Your task to perform on an android device: Toggle the flashlight Image 0: 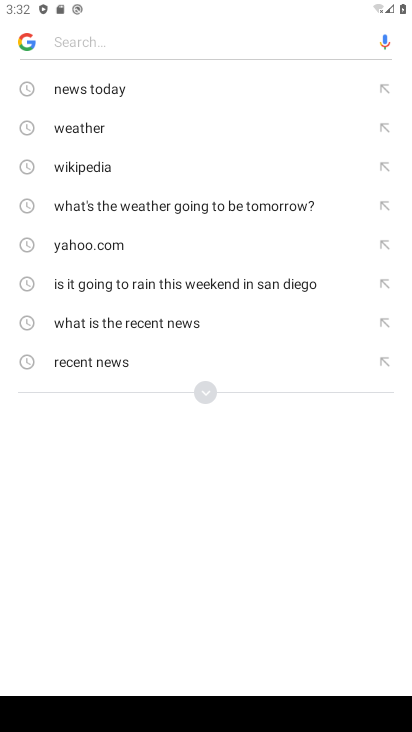
Step 0: press home button
Your task to perform on an android device: Toggle the flashlight Image 1: 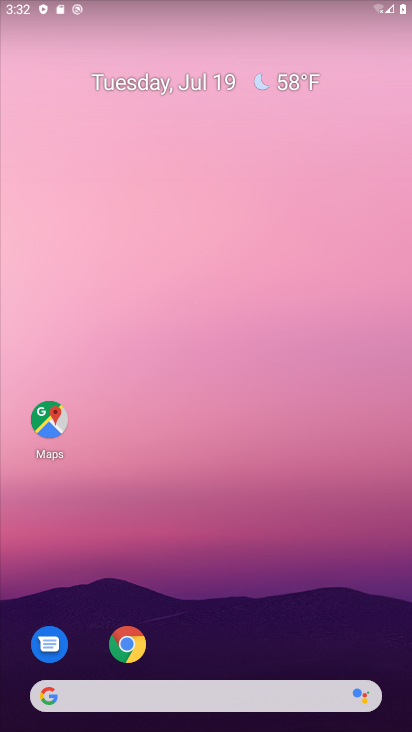
Step 1: task complete